Your task to perform on an android device: Go to internet settings Image 0: 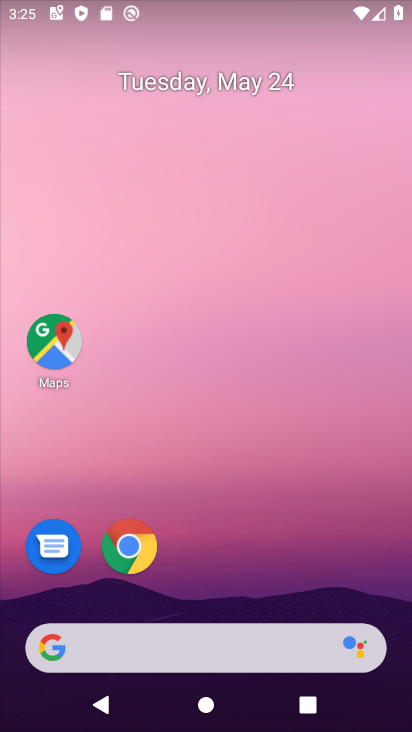
Step 0: drag from (264, 412) to (206, 101)
Your task to perform on an android device: Go to internet settings Image 1: 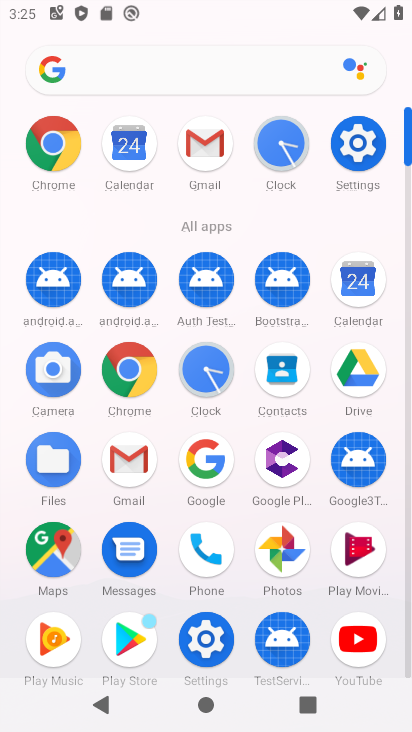
Step 1: click (354, 148)
Your task to perform on an android device: Go to internet settings Image 2: 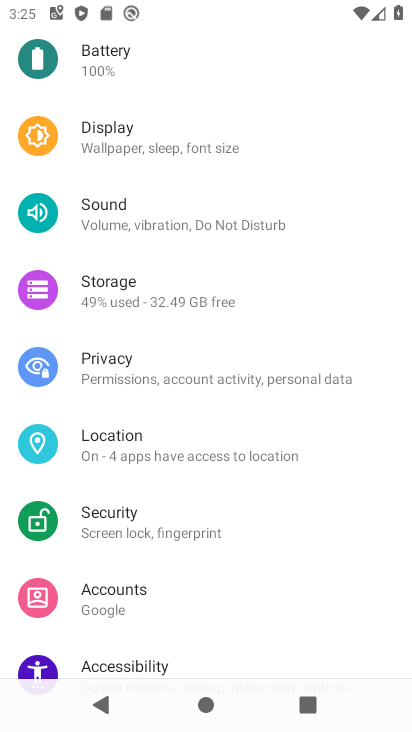
Step 2: drag from (245, 146) to (222, 643)
Your task to perform on an android device: Go to internet settings Image 3: 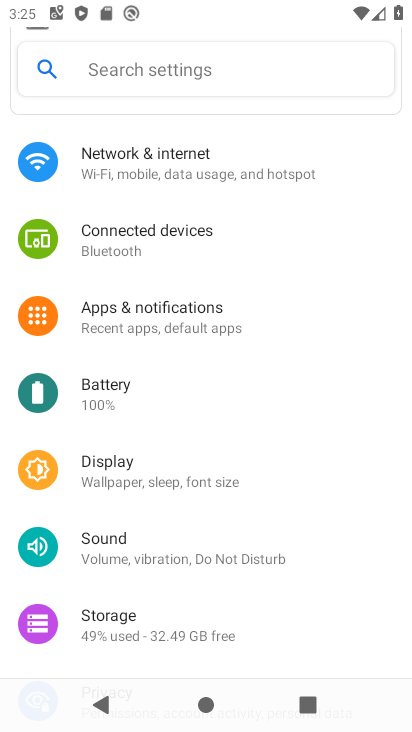
Step 3: click (207, 177)
Your task to perform on an android device: Go to internet settings Image 4: 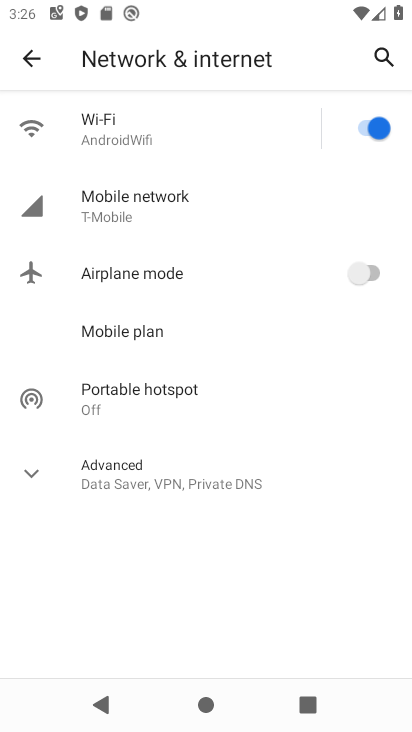
Step 4: task complete